Your task to perform on an android device: add a label to a message in the gmail app Image 0: 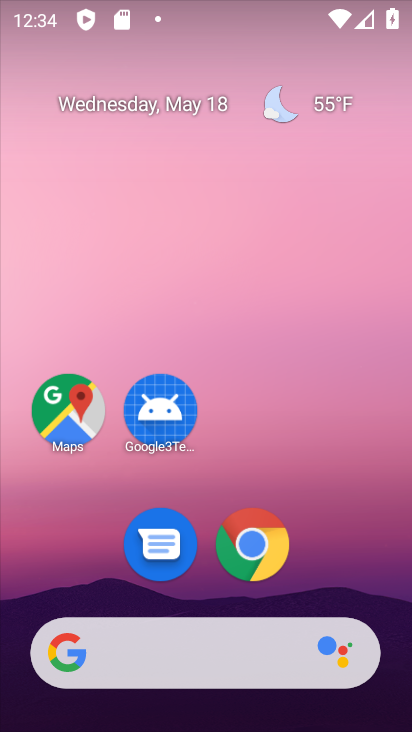
Step 0: drag from (211, 588) to (232, 96)
Your task to perform on an android device: add a label to a message in the gmail app Image 1: 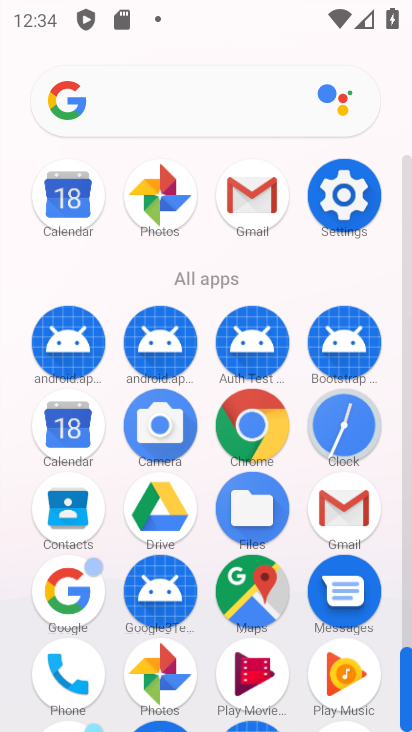
Step 1: click (328, 516)
Your task to perform on an android device: add a label to a message in the gmail app Image 2: 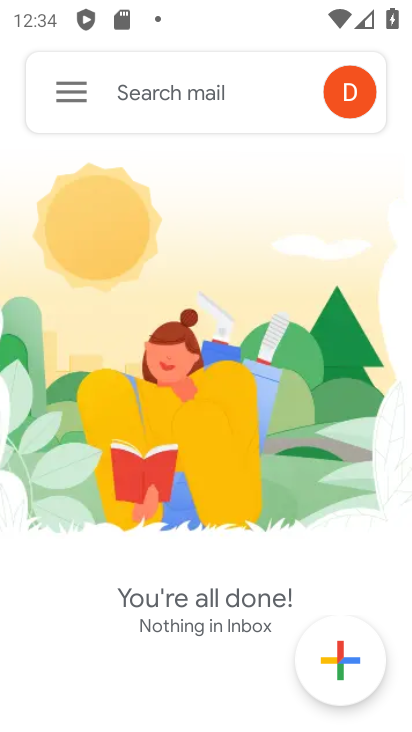
Step 2: click (62, 99)
Your task to perform on an android device: add a label to a message in the gmail app Image 3: 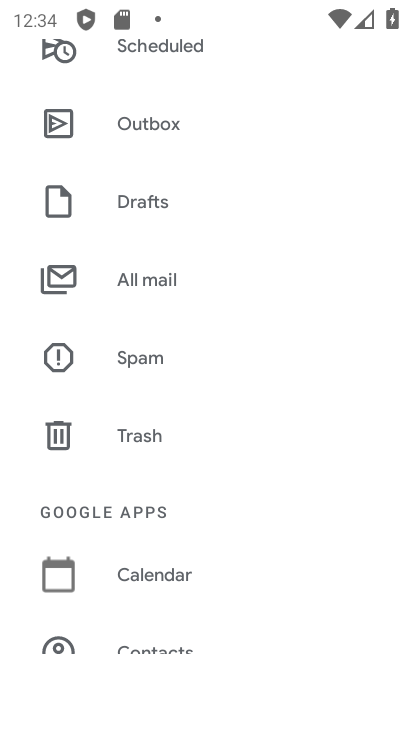
Step 3: click (156, 289)
Your task to perform on an android device: add a label to a message in the gmail app Image 4: 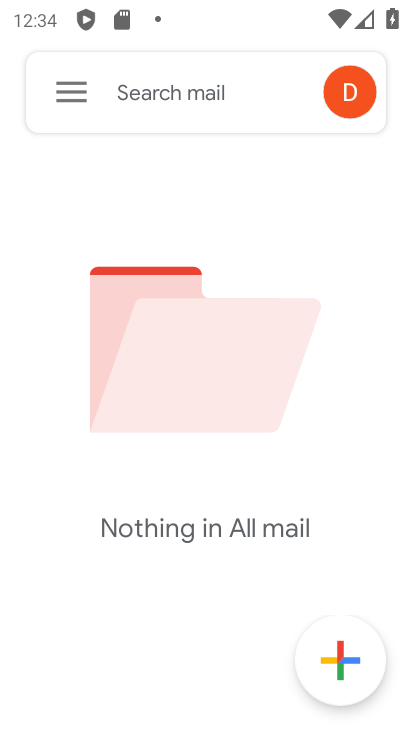
Step 4: task complete